Your task to perform on an android device: Is it going to rain today? Image 0: 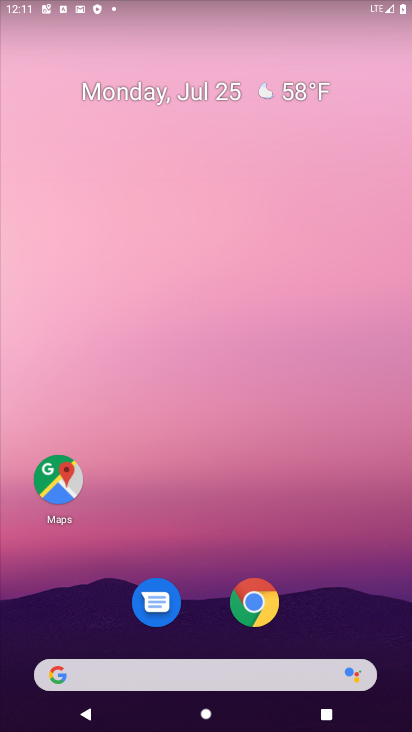
Step 0: drag from (209, 620) to (209, 241)
Your task to perform on an android device: Is it going to rain today? Image 1: 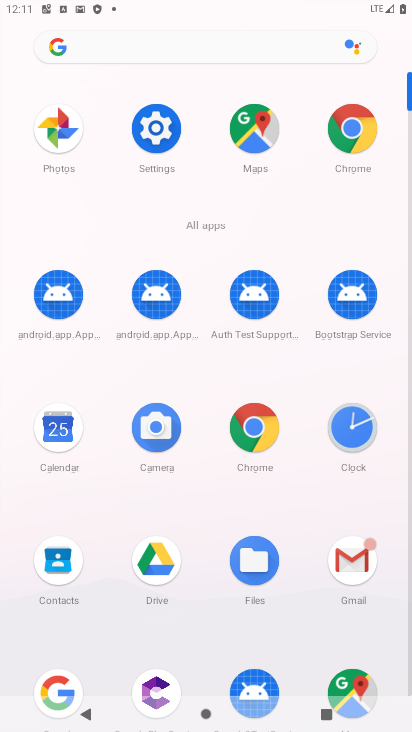
Step 1: drag from (226, 549) to (264, 232)
Your task to perform on an android device: Is it going to rain today? Image 2: 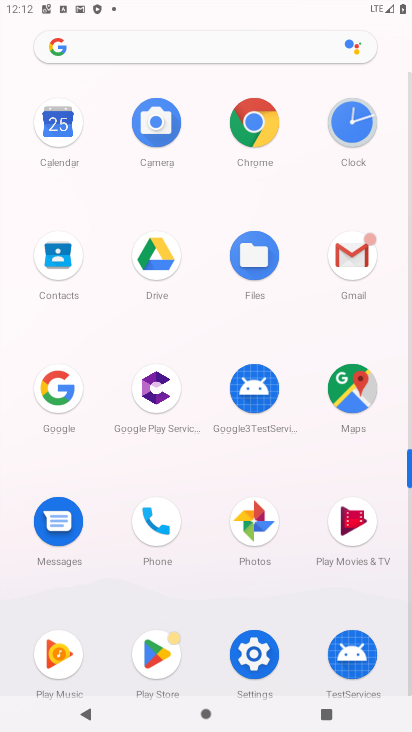
Step 2: click (43, 416)
Your task to perform on an android device: Is it going to rain today? Image 3: 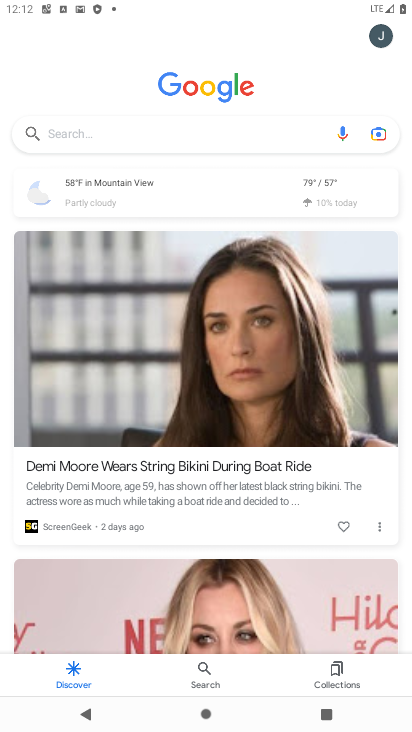
Step 3: click (142, 199)
Your task to perform on an android device: Is it going to rain today? Image 4: 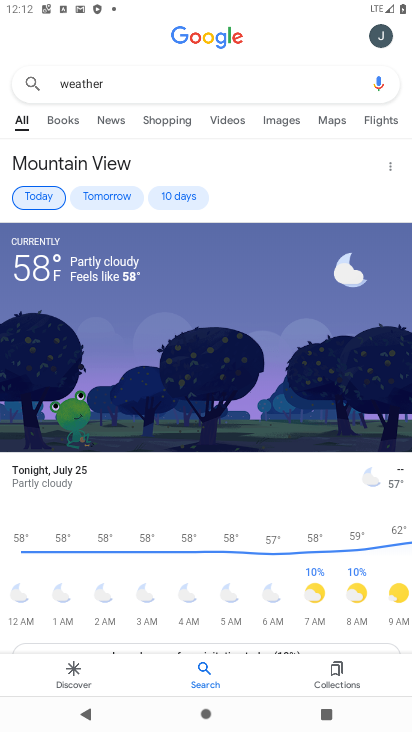
Step 4: task complete